Your task to perform on an android device: Open CNN.com Image 0: 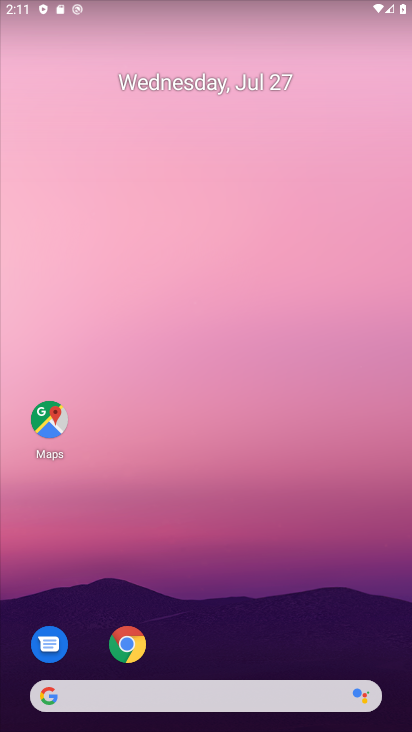
Step 0: click (125, 647)
Your task to perform on an android device: Open CNN.com Image 1: 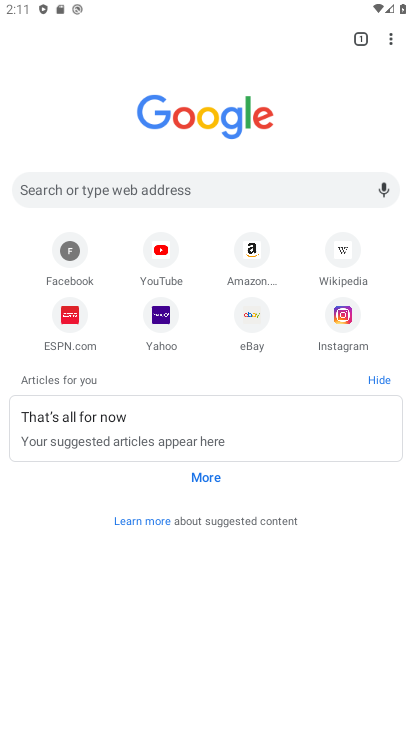
Step 1: click (240, 192)
Your task to perform on an android device: Open CNN.com Image 2: 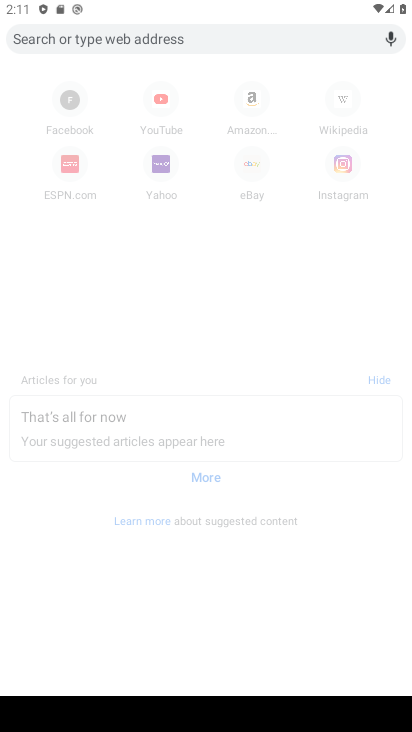
Step 2: type "cnn.com"
Your task to perform on an android device: Open CNN.com Image 3: 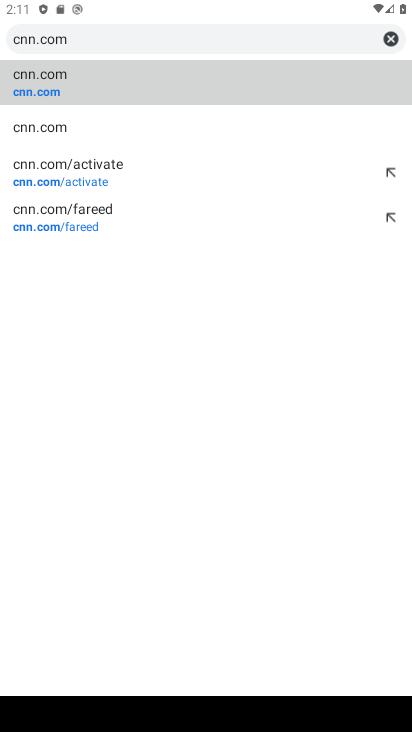
Step 3: click (113, 80)
Your task to perform on an android device: Open CNN.com Image 4: 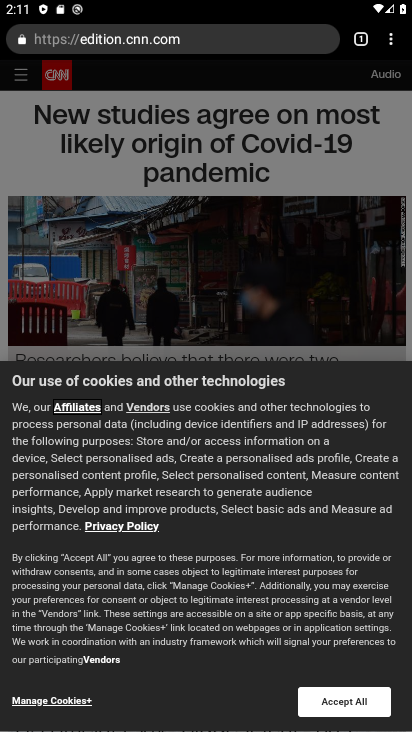
Step 4: task complete